Your task to perform on an android device: turn on translation in the chrome app Image 0: 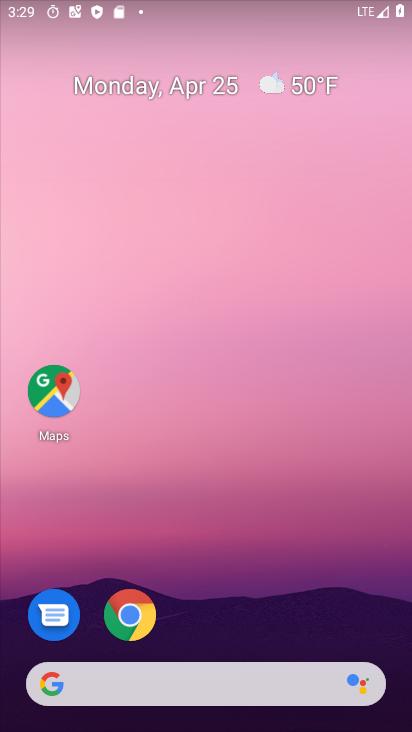
Step 0: click (127, 615)
Your task to perform on an android device: turn on translation in the chrome app Image 1: 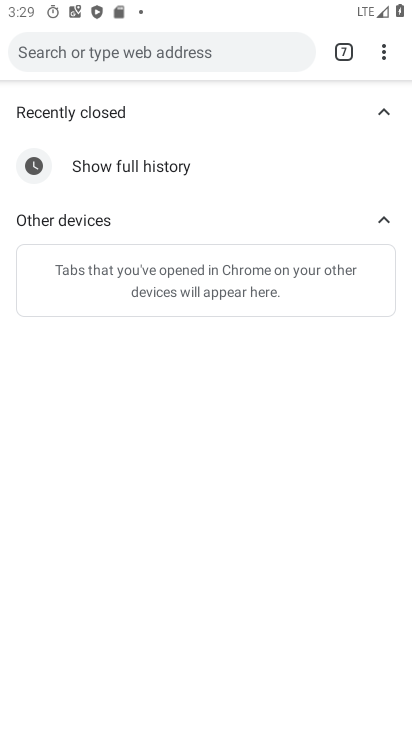
Step 1: drag from (385, 58) to (252, 496)
Your task to perform on an android device: turn on translation in the chrome app Image 2: 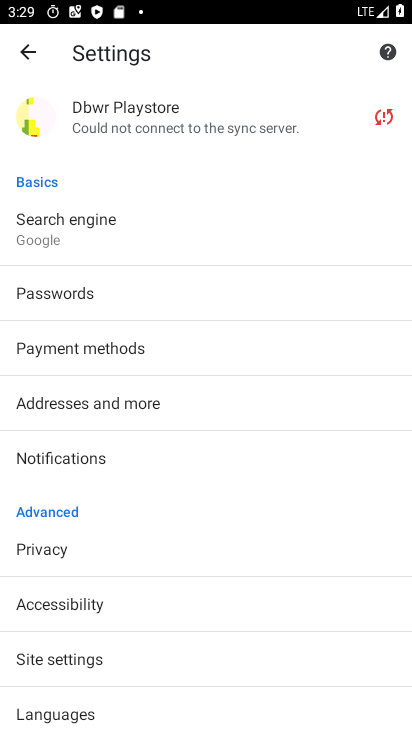
Step 2: drag from (146, 702) to (201, 337)
Your task to perform on an android device: turn on translation in the chrome app Image 3: 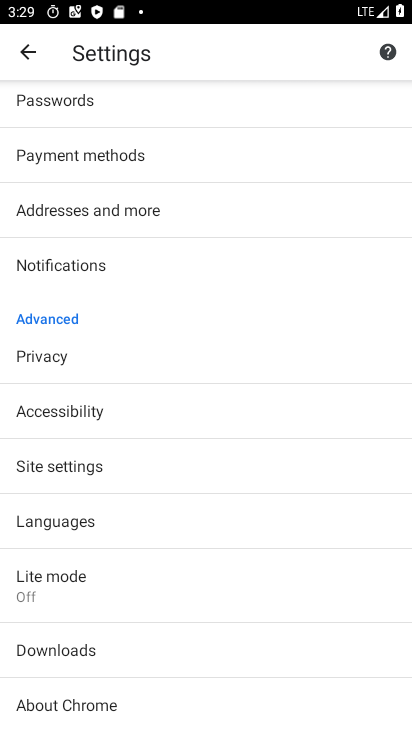
Step 3: click (98, 517)
Your task to perform on an android device: turn on translation in the chrome app Image 4: 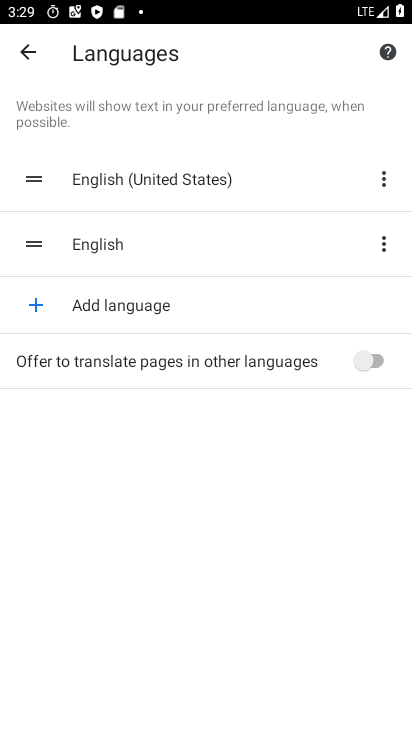
Step 4: click (374, 356)
Your task to perform on an android device: turn on translation in the chrome app Image 5: 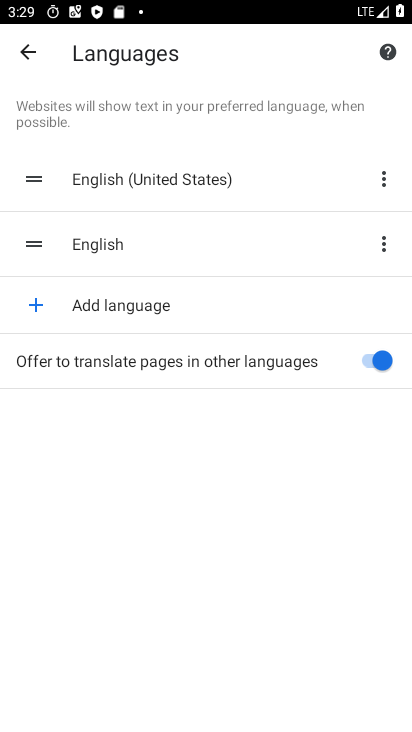
Step 5: task complete